Your task to perform on an android device: change alarm snooze length Image 0: 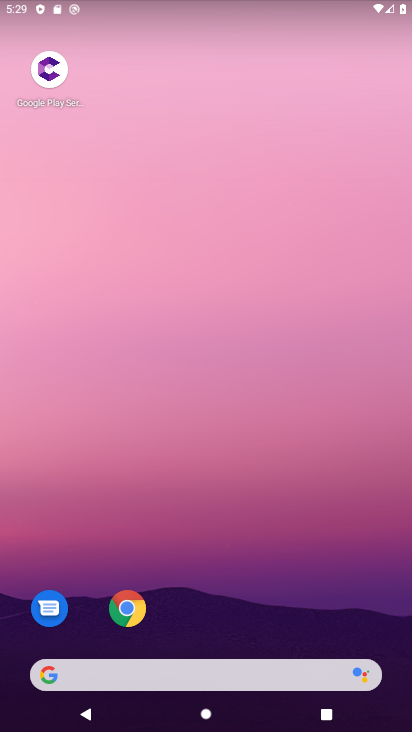
Step 0: drag from (277, 511) to (235, 29)
Your task to perform on an android device: change alarm snooze length Image 1: 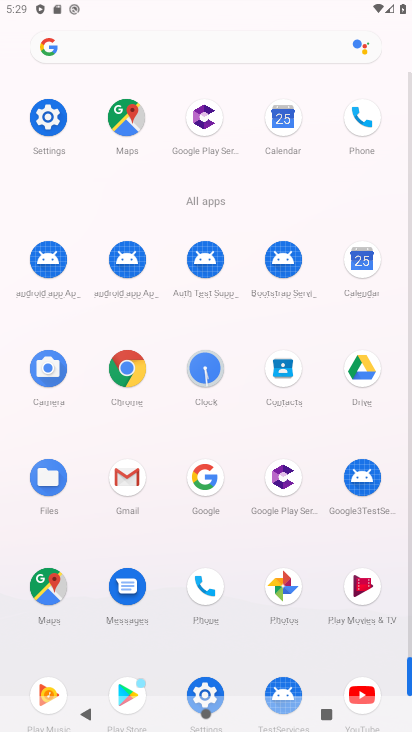
Step 1: drag from (6, 479) to (15, 181)
Your task to perform on an android device: change alarm snooze length Image 2: 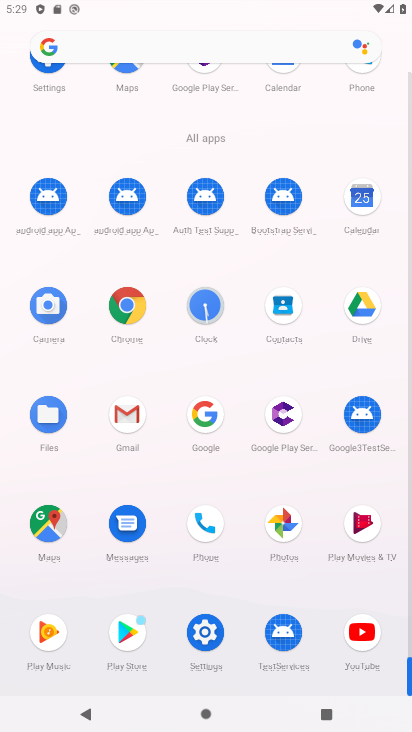
Step 2: drag from (19, 235) to (12, 456)
Your task to perform on an android device: change alarm snooze length Image 3: 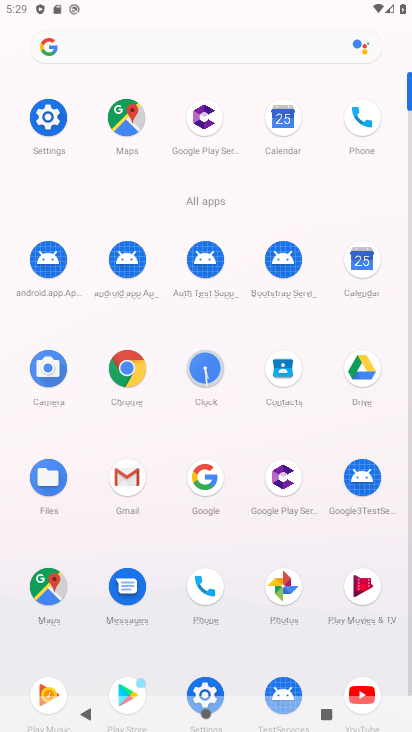
Step 3: drag from (3, 498) to (14, 189)
Your task to perform on an android device: change alarm snooze length Image 4: 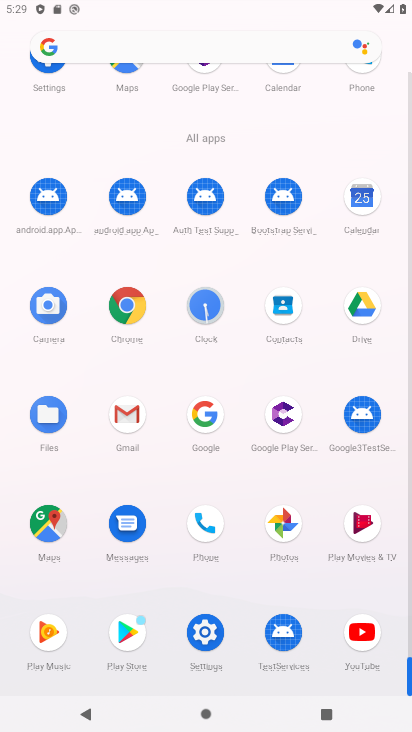
Step 4: click (204, 305)
Your task to perform on an android device: change alarm snooze length Image 5: 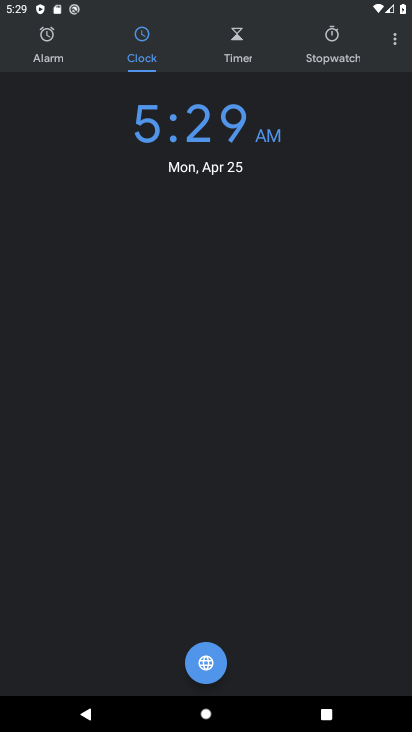
Step 5: click (393, 41)
Your task to perform on an android device: change alarm snooze length Image 6: 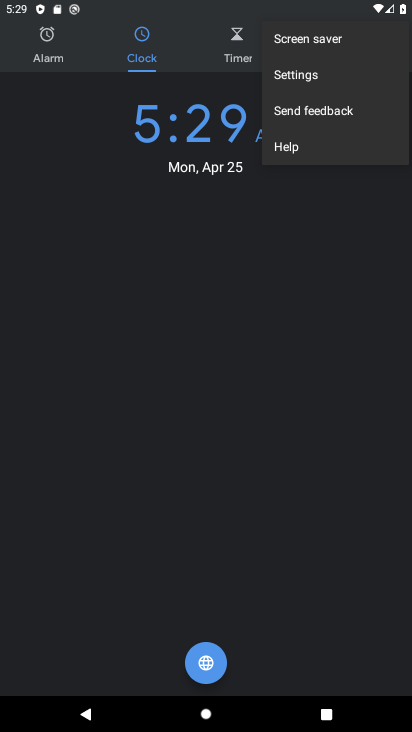
Step 6: click (336, 73)
Your task to perform on an android device: change alarm snooze length Image 7: 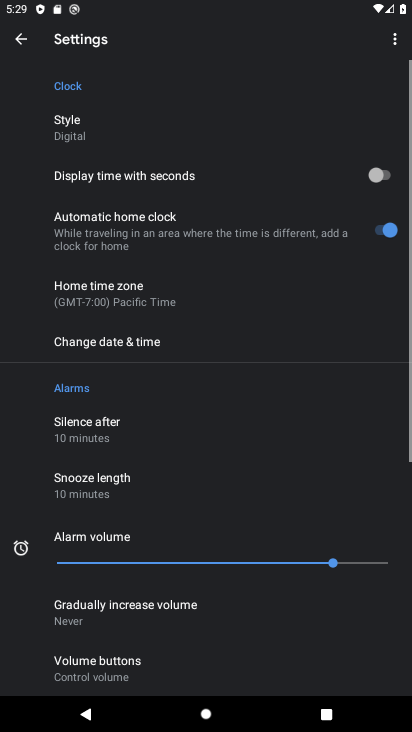
Step 7: drag from (206, 486) to (222, 125)
Your task to perform on an android device: change alarm snooze length Image 8: 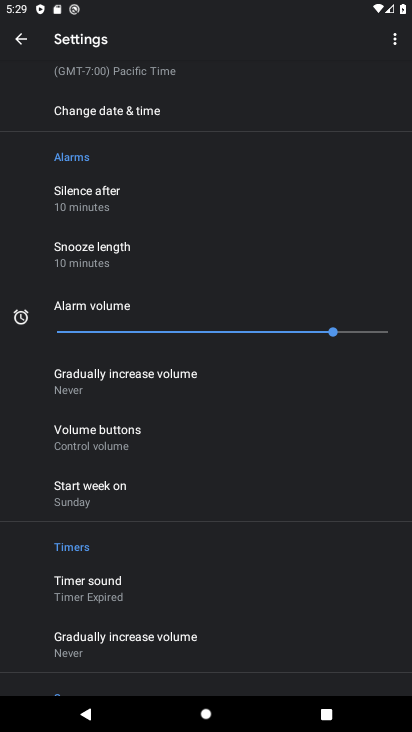
Step 8: drag from (213, 408) to (220, 102)
Your task to perform on an android device: change alarm snooze length Image 9: 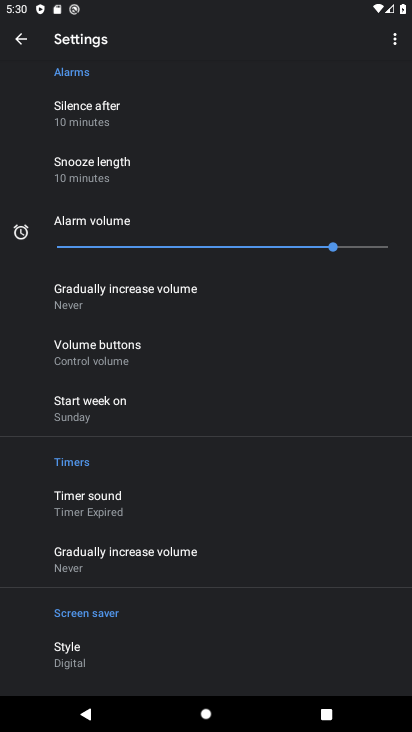
Step 9: click (83, 170)
Your task to perform on an android device: change alarm snooze length Image 10: 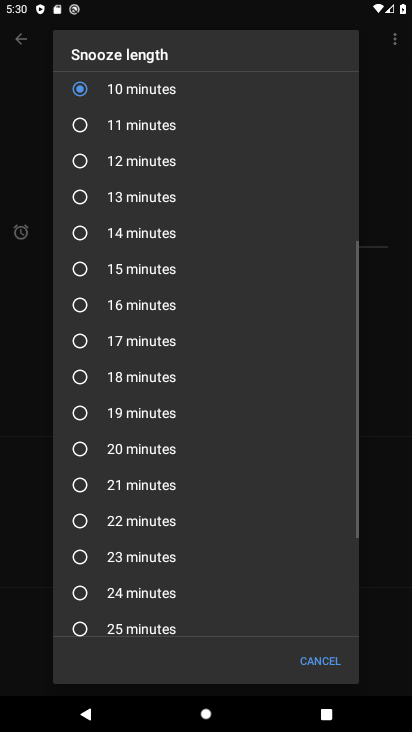
Step 10: click (131, 162)
Your task to perform on an android device: change alarm snooze length Image 11: 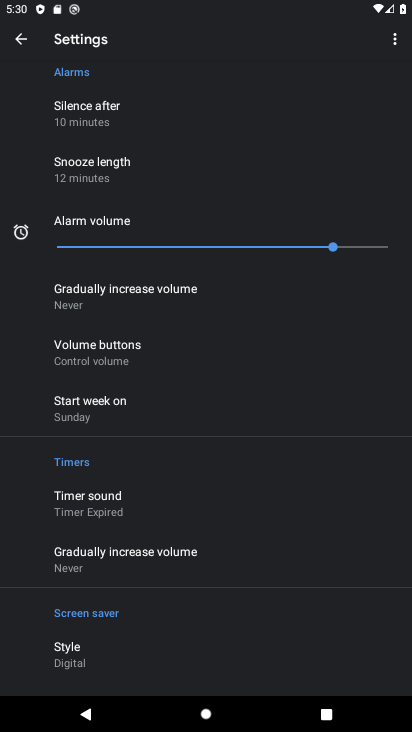
Step 11: task complete